Your task to perform on an android device: What is the capital of Spain? Image 0: 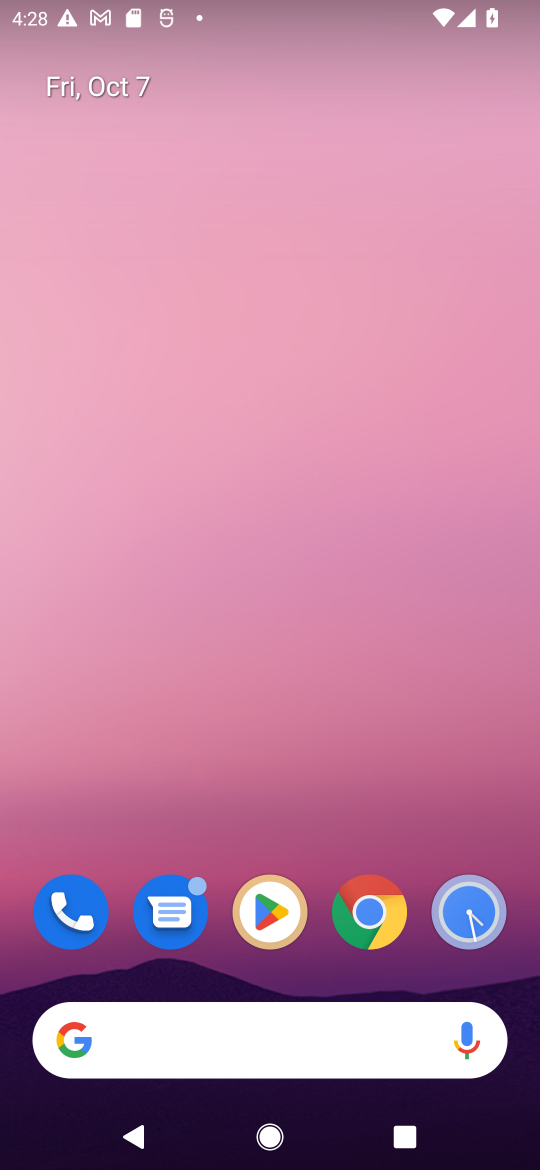
Step 0: drag from (306, 944) to (355, 478)
Your task to perform on an android device: What is the capital of Spain? Image 1: 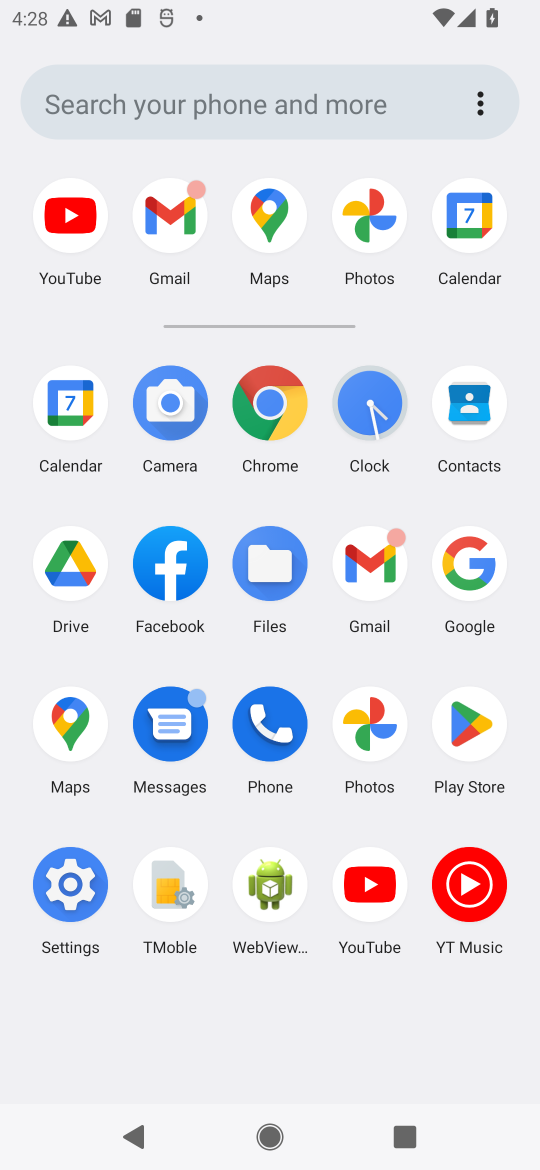
Step 1: click (468, 570)
Your task to perform on an android device: What is the capital of Spain? Image 2: 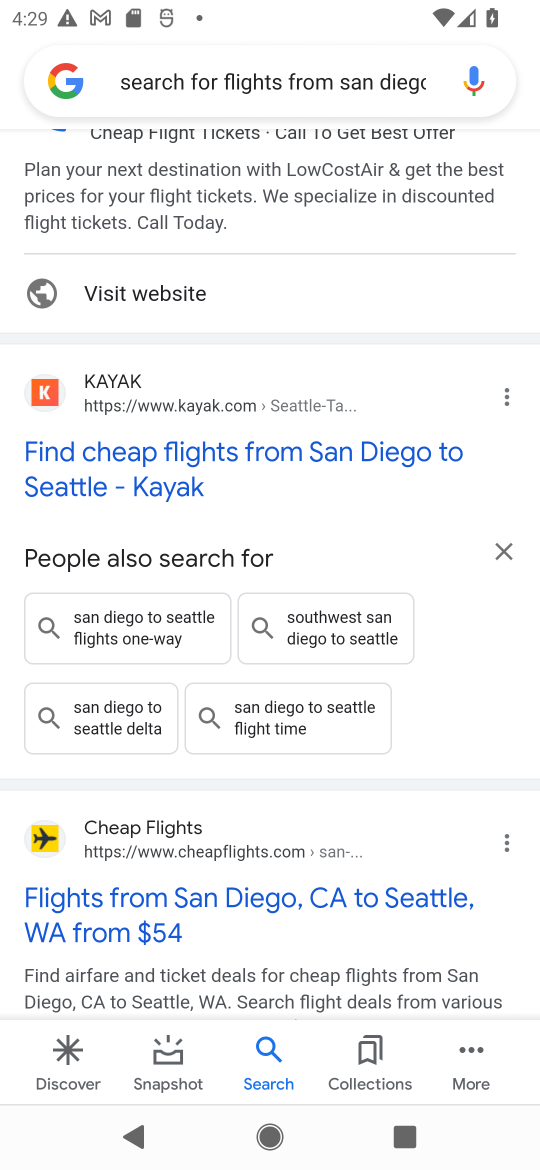
Step 2: click (353, 81)
Your task to perform on an android device: What is the capital of Spain? Image 3: 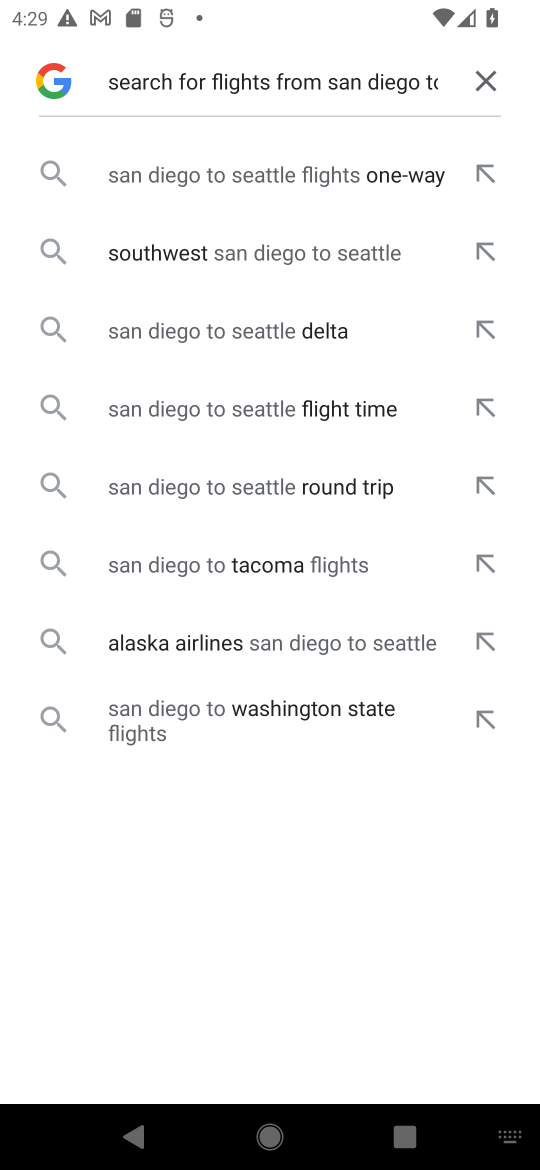
Step 3: click (483, 68)
Your task to perform on an android device: What is the capital of Spain? Image 4: 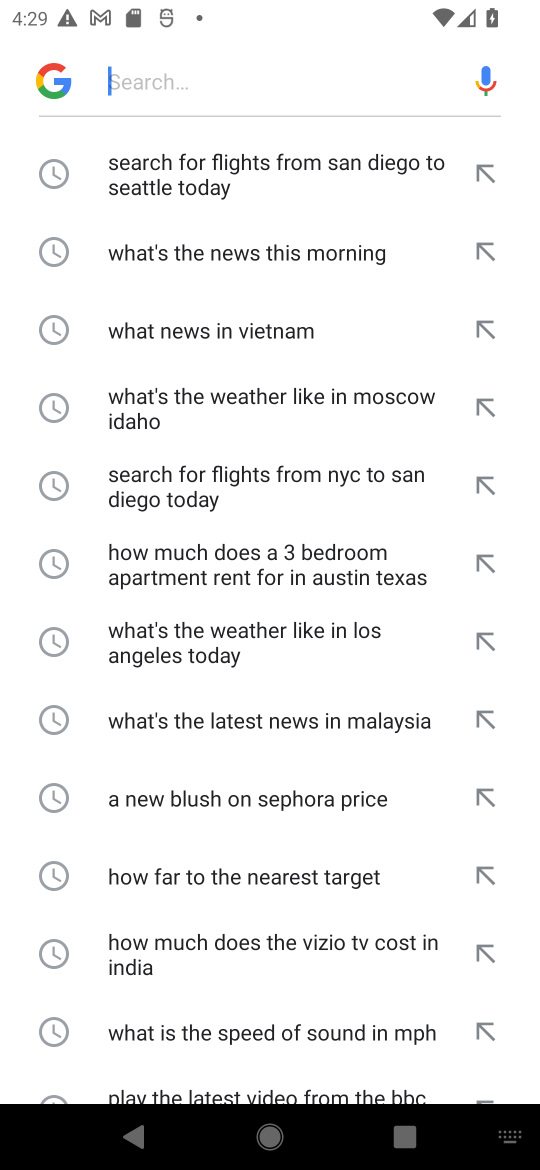
Step 4: click (267, 39)
Your task to perform on an android device: What is the capital of Spain? Image 5: 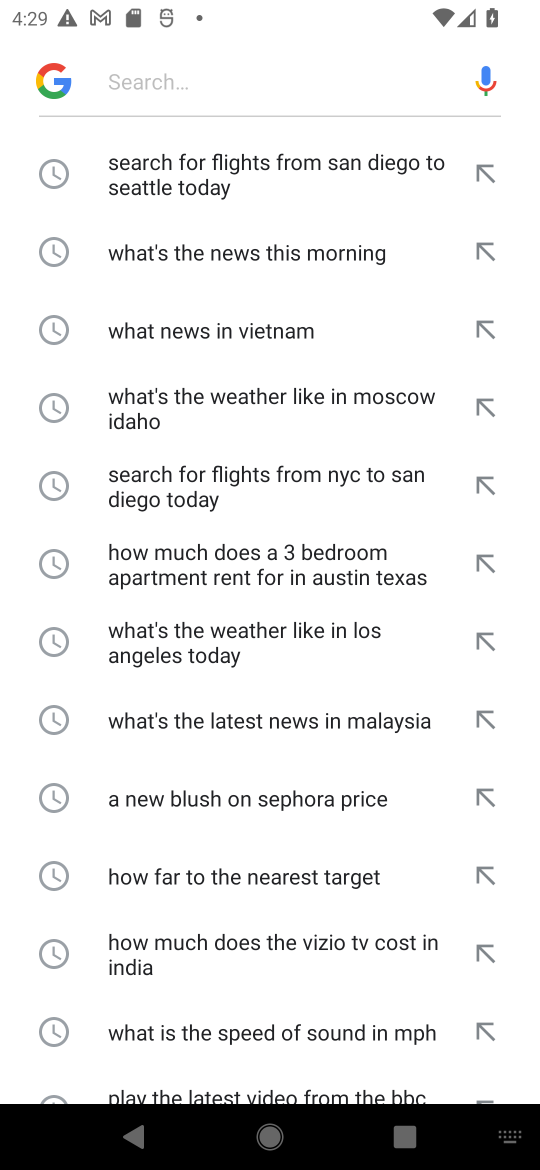
Step 5: type "What is the capital of Spain? "
Your task to perform on an android device: What is the capital of Spain? Image 6: 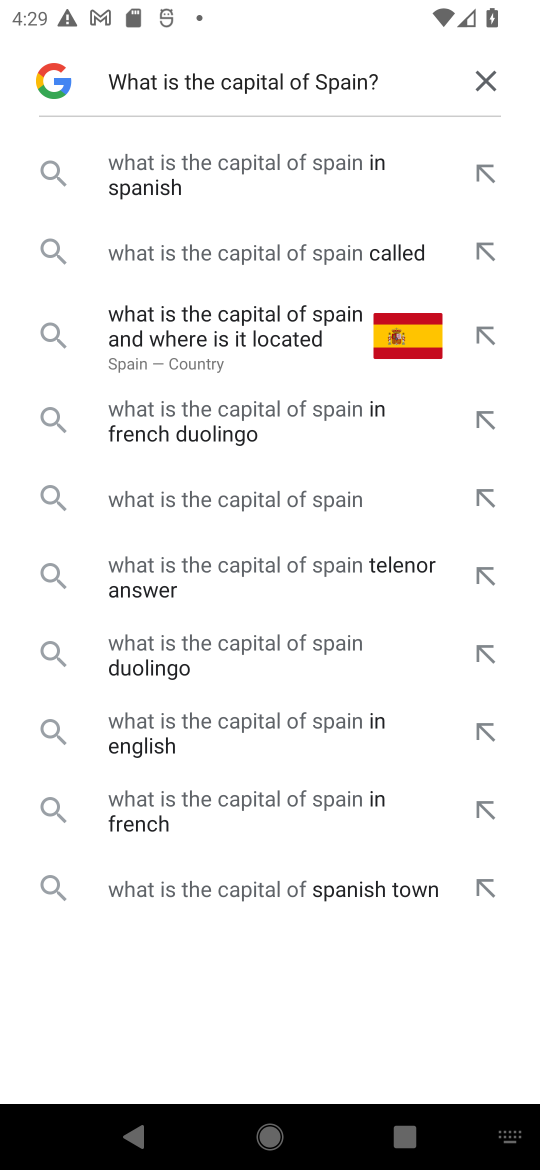
Step 6: click (299, 189)
Your task to perform on an android device: What is the capital of Spain? Image 7: 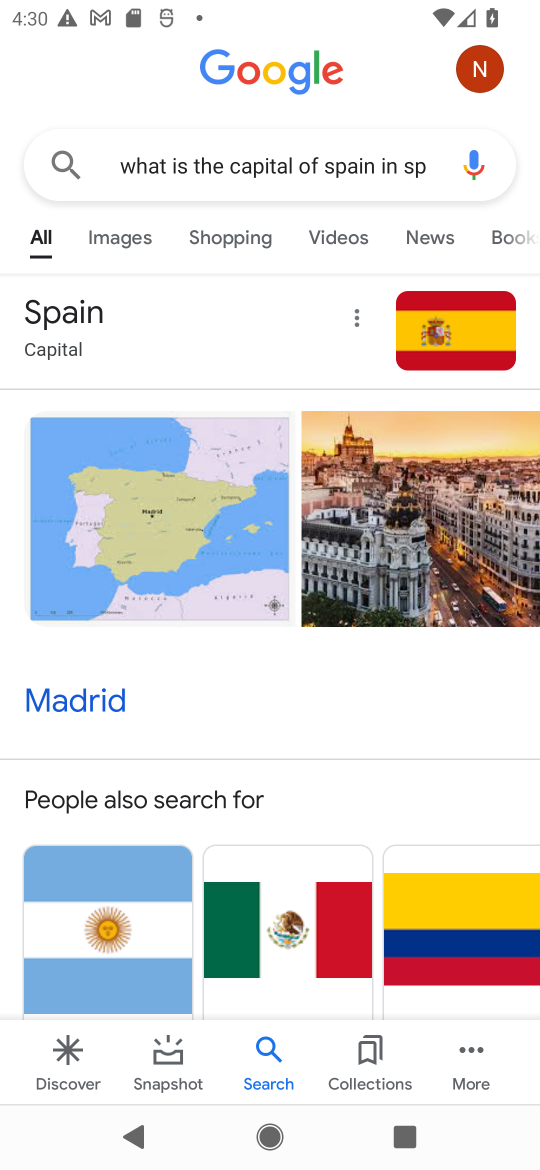
Step 7: task complete